Your task to perform on an android device: Find coffee shops on Maps Image 0: 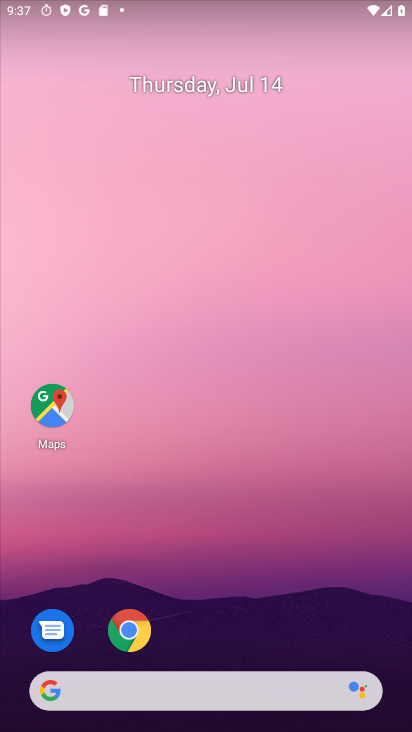
Step 0: click (51, 397)
Your task to perform on an android device: Find coffee shops on Maps Image 1: 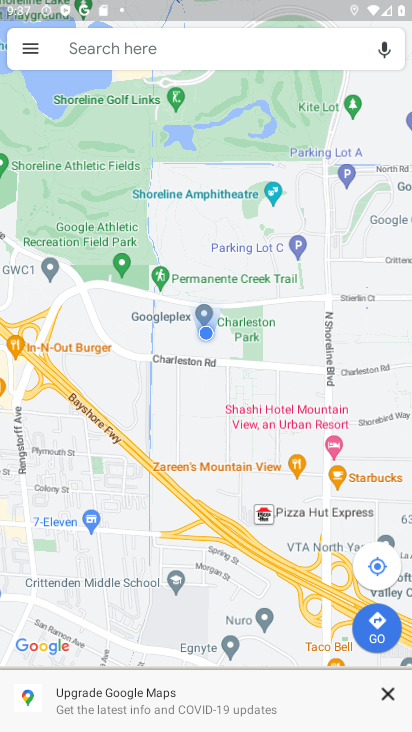
Step 1: click (73, 38)
Your task to perform on an android device: Find coffee shops on Maps Image 2: 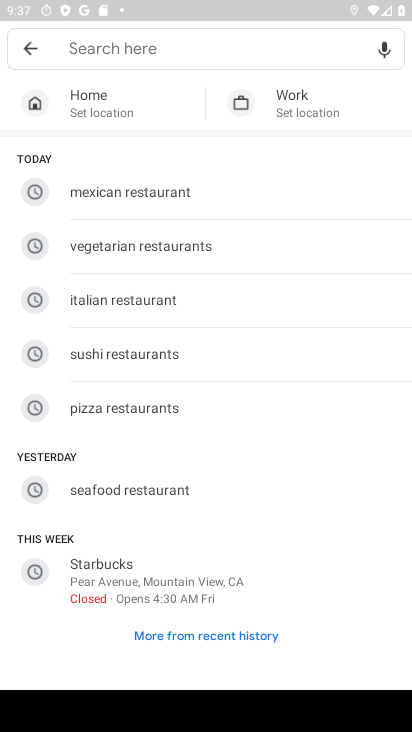
Step 2: type "coffee shops"
Your task to perform on an android device: Find coffee shops on Maps Image 3: 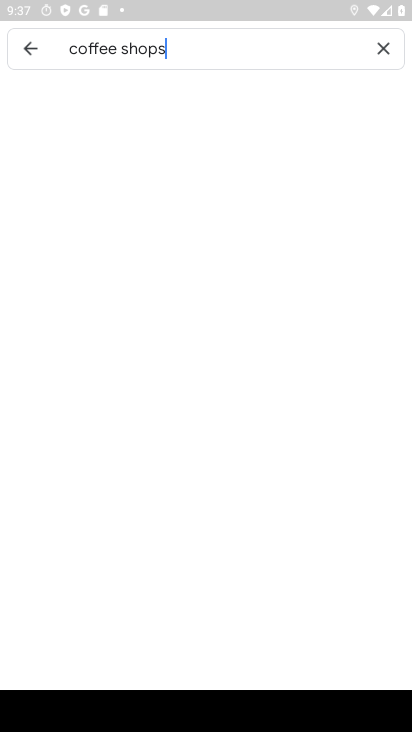
Step 3: type ""
Your task to perform on an android device: Find coffee shops on Maps Image 4: 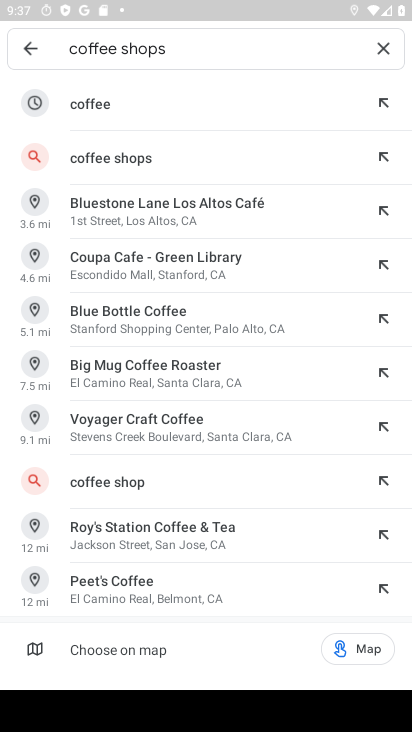
Step 4: task complete